Your task to perform on an android device: Search for flights from Mexico city to Sydney Image 0: 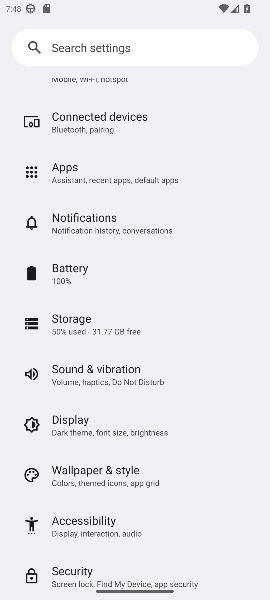
Step 0: press home button
Your task to perform on an android device: Search for flights from Mexico city to Sydney Image 1: 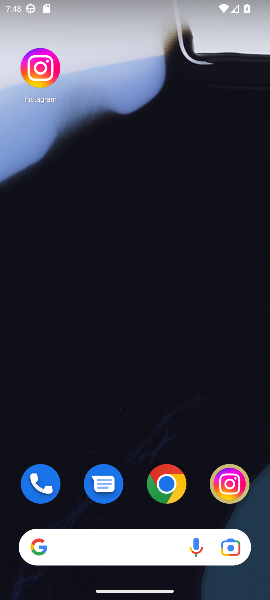
Step 1: click (167, 484)
Your task to perform on an android device: Search for flights from Mexico city to Sydney Image 2: 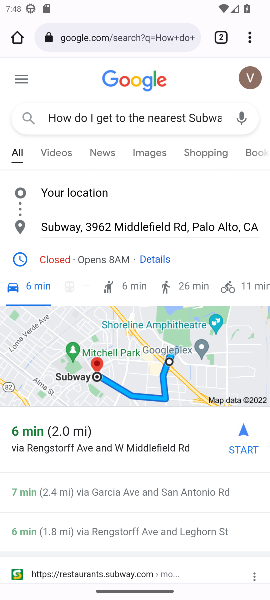
Step 2: click (127, 33)
Your task to perform on an android device: Search for flights from Mexico city to Sydney Image 3: 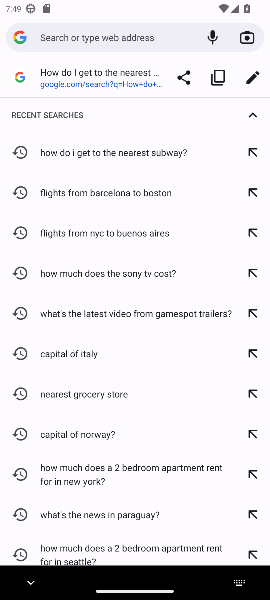
Step 3: type "flights from Mexico city to Sydney"
Your task to perform on an android device: Search for flights from Mexico city to Sydney Image 4: 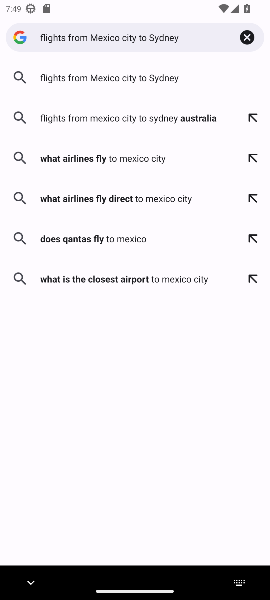
Step 4: click (105, 79)
Your task to perform on an android device: Search for flights from Mexico city to Sydney Image 5: 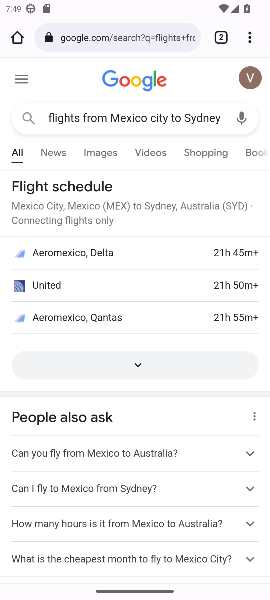
Step 5: task complete